Your task to perform on an android device: Turn off the flashlight Image 0: 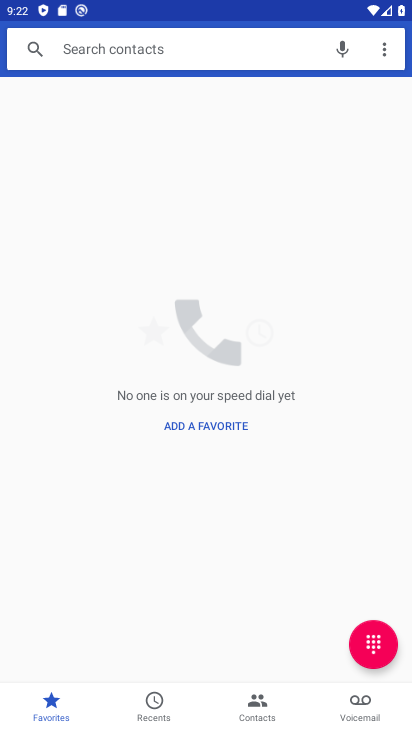
Step 0: press home button
Your task to perform on an android device: Turn off the flashlight Image 1: 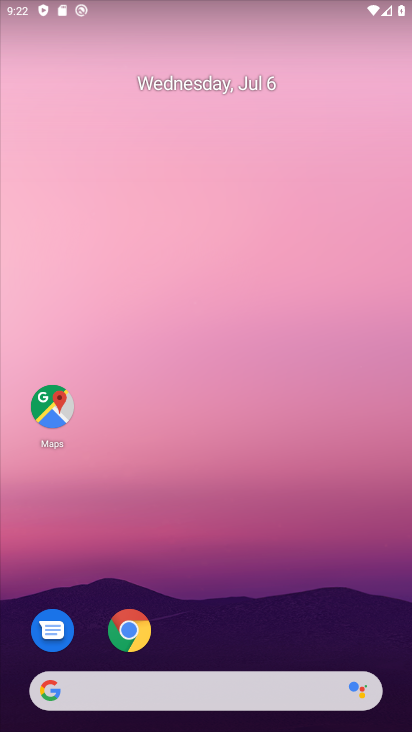
Step 1: drag from (367, 623) to (362, 4)
Your task to perform on an android device: Turn off the flashlight Image 2: 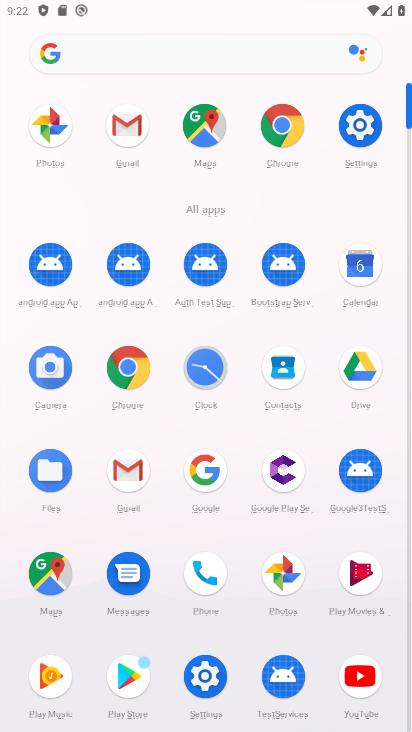
Step 2: press back button
Your task to perform on an android device: Turn off the flashlight Image 3: 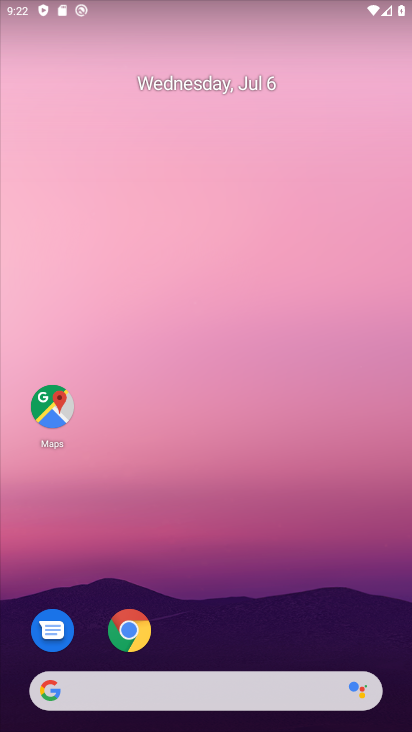
Step 3: drag from (245, 23) to (249, 477)
Your task to perform on an android device: Turn off the flashlight Image 4: 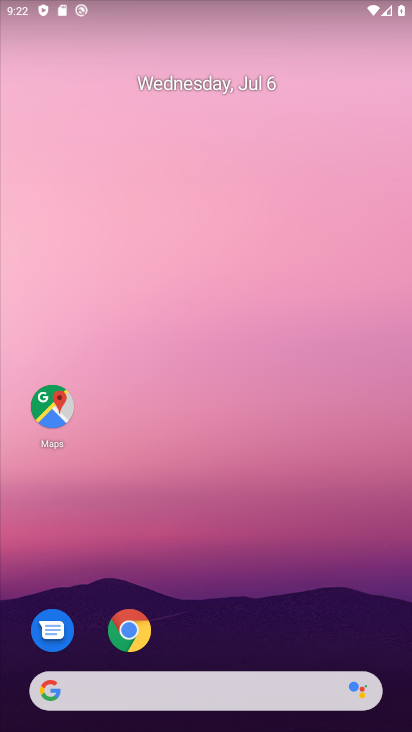
Step 4: drag from (276, 21) to (274, 369)
Your task to perform on an android device: Turn off the flashlight Image 5: 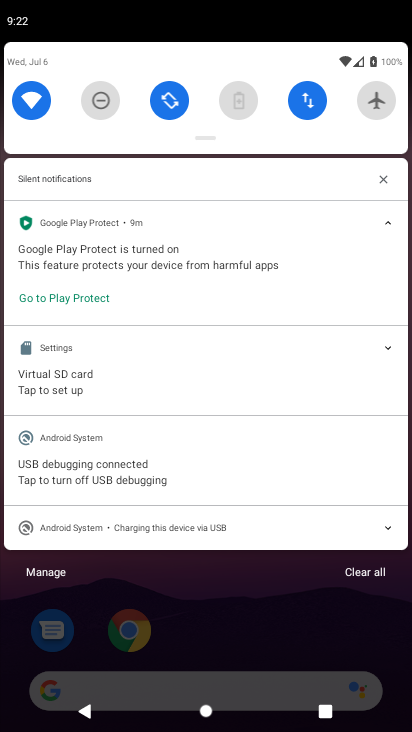
Step 5: drag from (212, 136) to (240, 453)
Your task to perform on an android device: Turn off the flashlight Image 6: 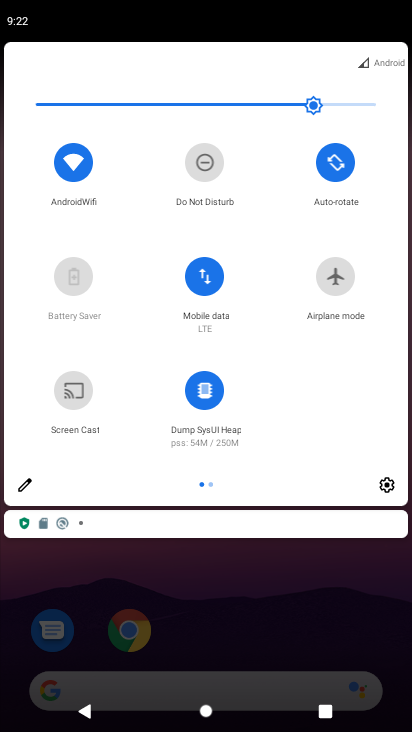
Step 6: click (19, 485)
Your task to perform on an android device: Turn off the flashlight Image 7: 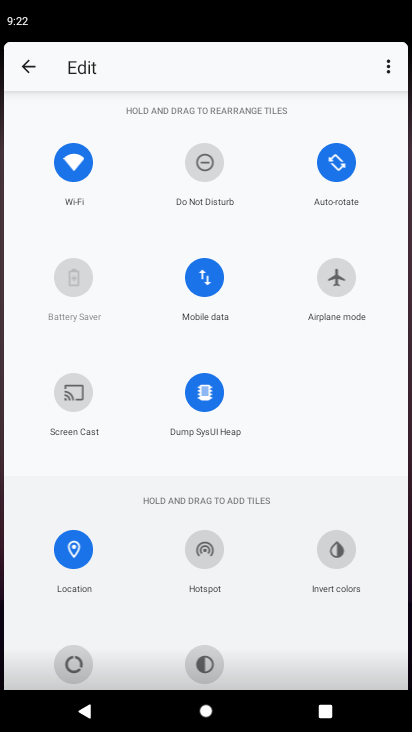
Step 7: task complete